Your task to perform on an android device: open chrome and create a bookmark for the current page Image 0: 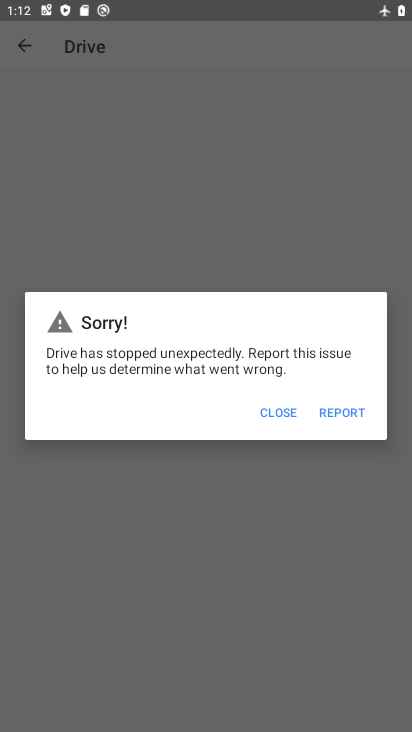
Step 0: press home button
Your task to perform on an android device: open chrome and create a bookmark for the current page Image 1: 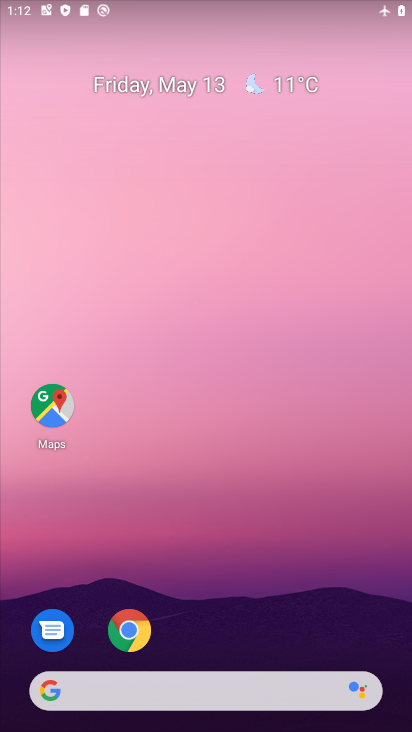
Step 1: click (134, 634)
Your task to perform on an android device: open chrome and create a bookmark for the current page Image 2: 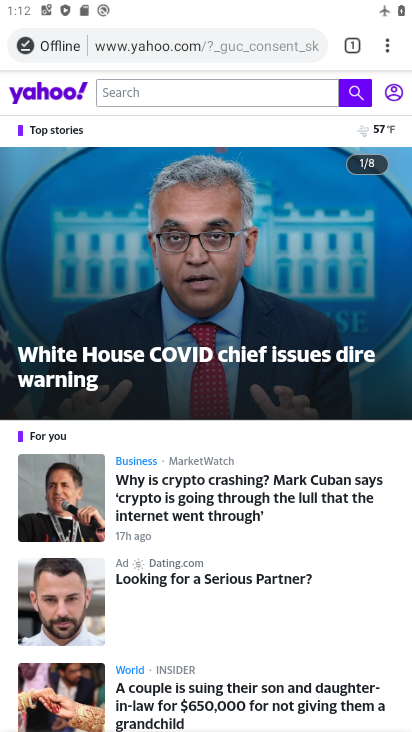
Step 2: click (387, 41)
Your task to perform on an android device: open chrome and create a bookmark for the current page Image 3: 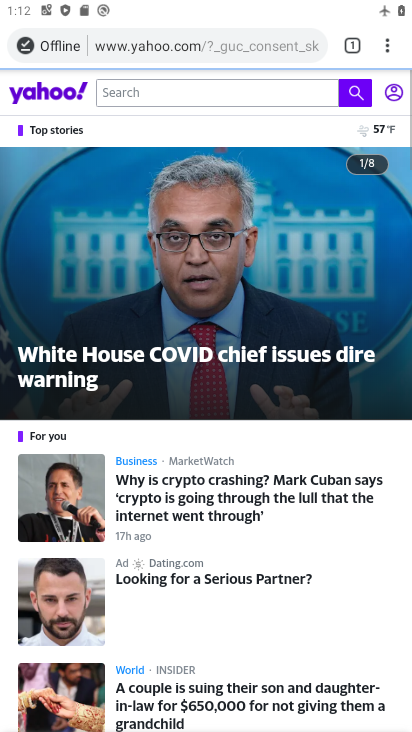
Step 3: click (387, 41)
Your task to perform on an android device: open chrome and create a bookmark for the current page Image 4: 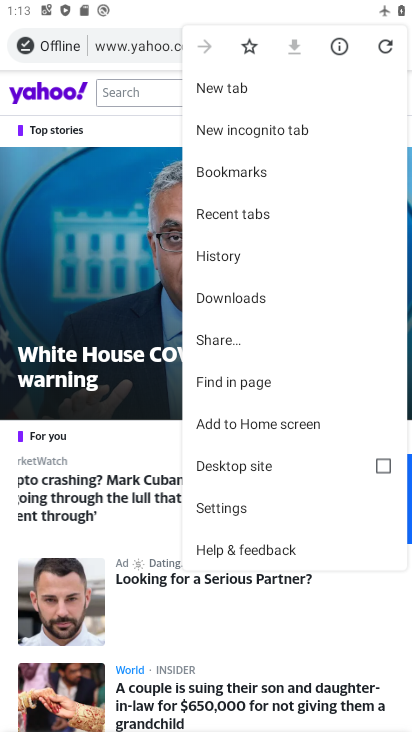
Step 4: click (249, 43)
Your task to perform on an android device: open chrome and create a bookmark for the current page Image 5: 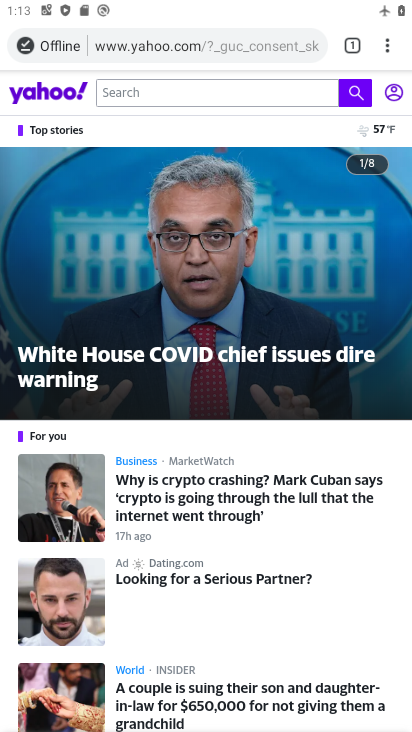
Step 5: click (384, 50)
Your task to perform on an android device: open chrome and create a bookmark for the current page Image 6: 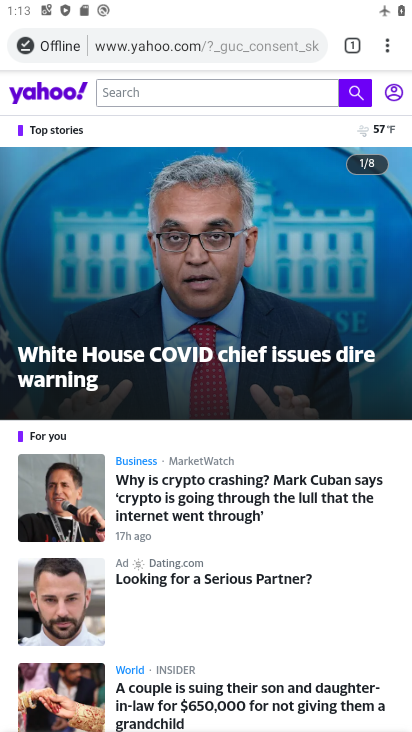
Step 6: task complete